Your task to perform on an android device: empty trash in google photos Image 0: 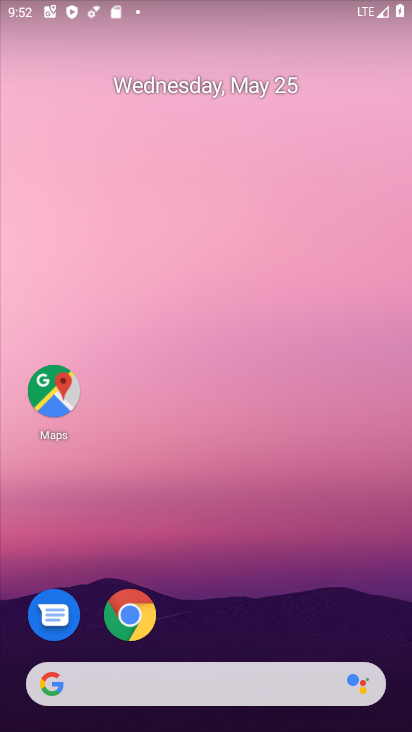
Step 0: drag from (224, 520) to (241, 0)
Your task to perform on an android device: empty trash in google photos Image 1: 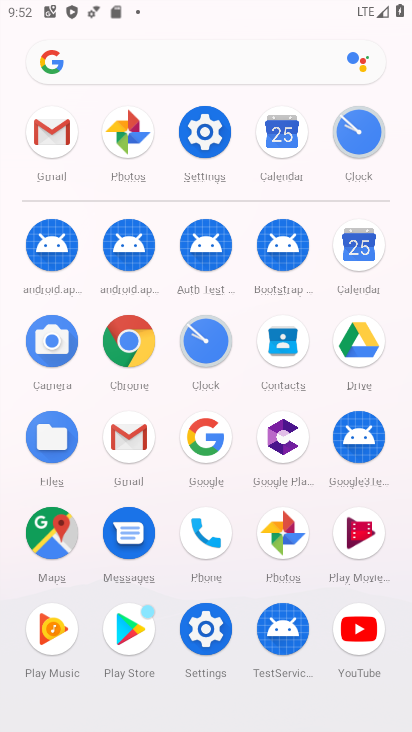
Step 1: click (126, 122)
Your task to perform on an android device: empty trash in google photos Image 2: 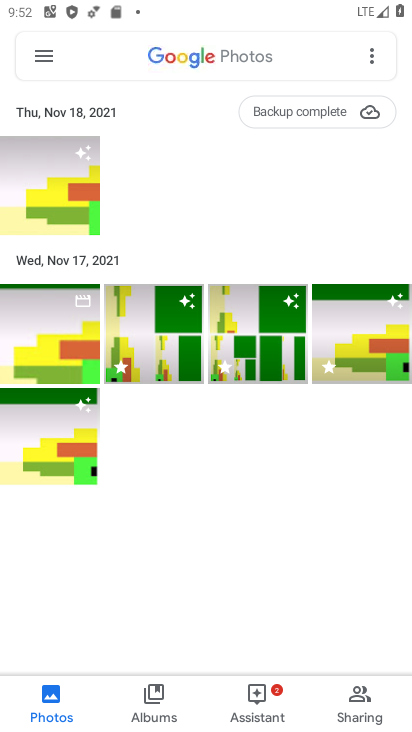
Step 2: click (42, 57)
Your task to perform on an android device: empty trash in google photos Image 3: 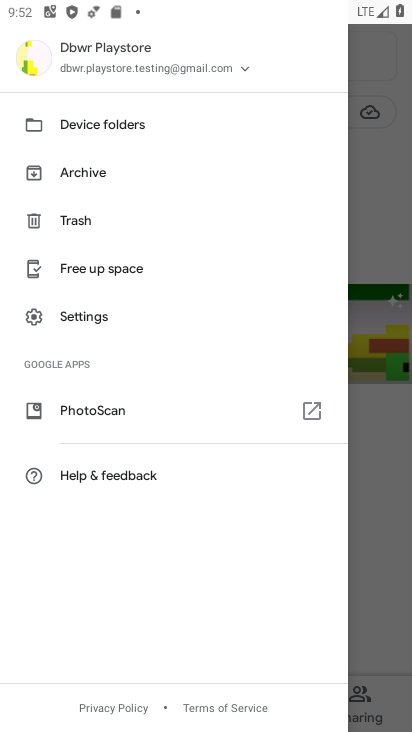
Step 3: click (75, 213)
Your task to perform on an android device: empty trash in google photos Image 4: 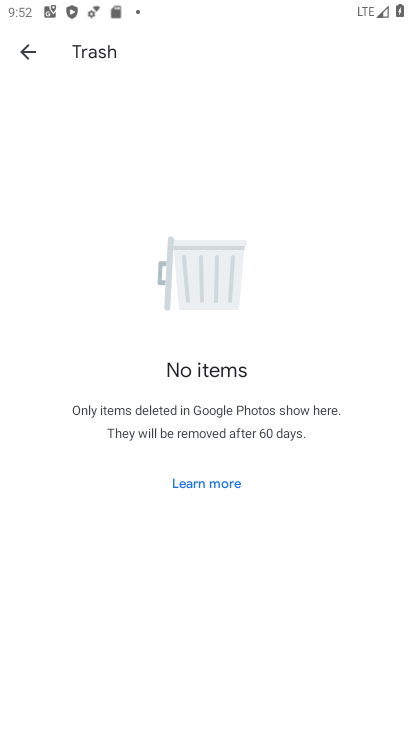
Step 4: task complete